Your task to perform on an android device: install app "Google Find My Device" Image 0: 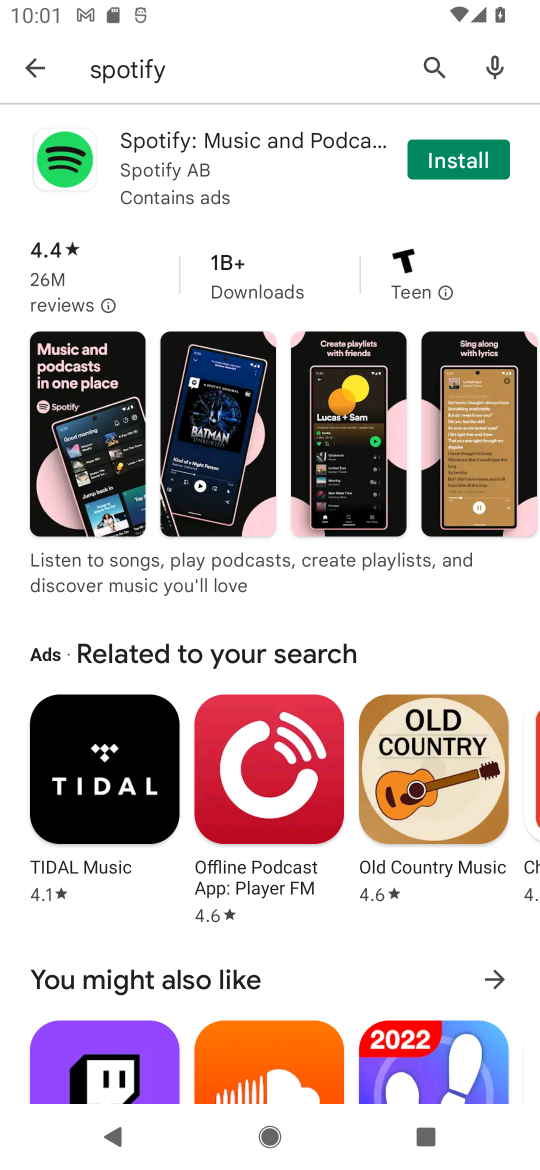
Step 0: press home button
Your task to perform on an android device: install app "Google Find My Device" Image 1: 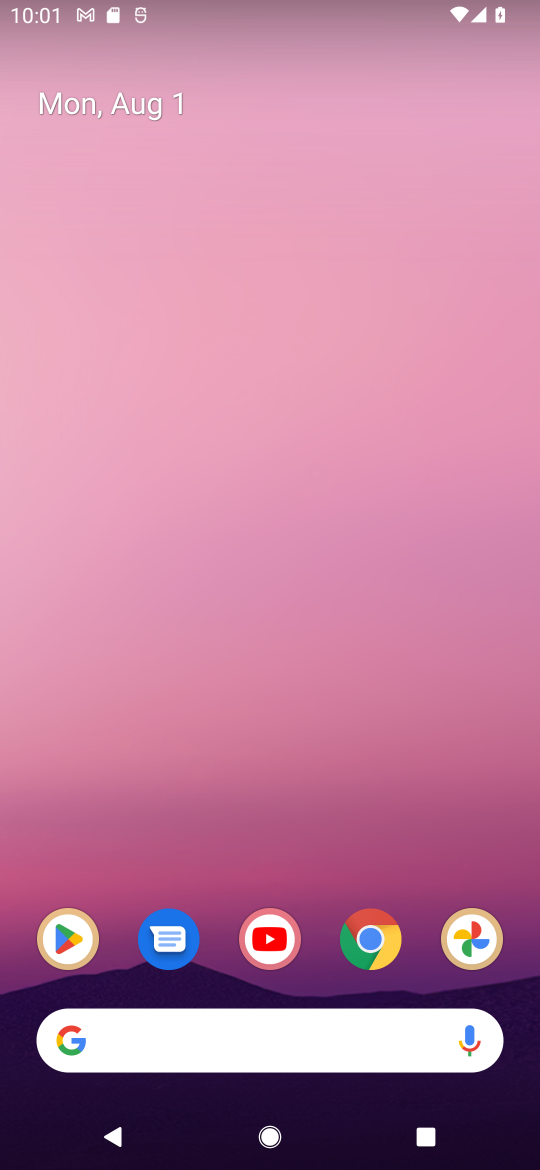
Step 1: drag from (382, 814) to (318, 714)
Your task to perform on an android device: install app "Google Find My Device" Image 2: 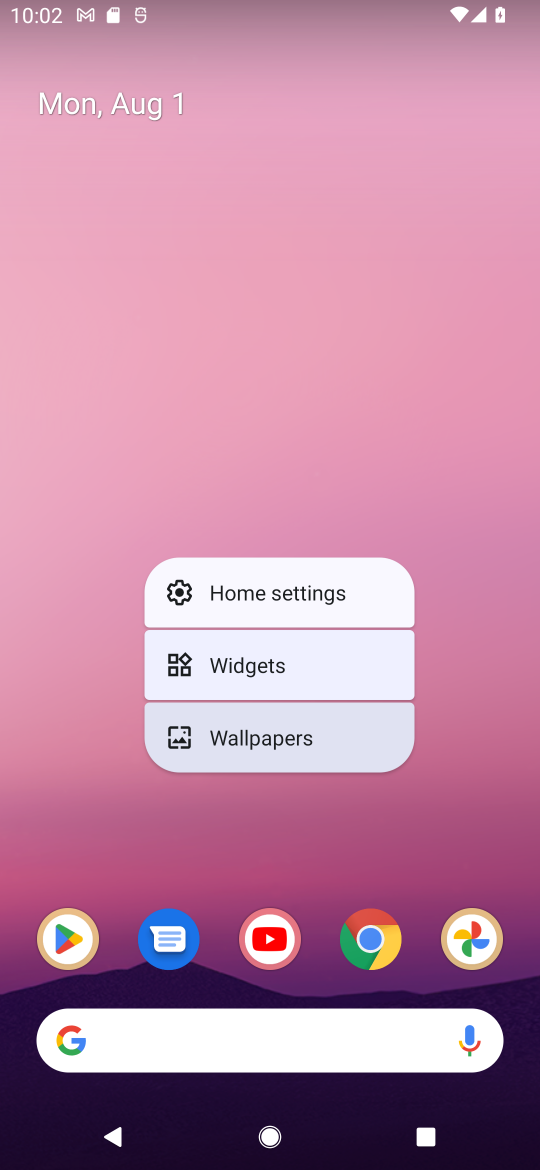
Step 2: click (431, 773)
Your task to perform on an android device: install app "Google Find My Device" Image 3: 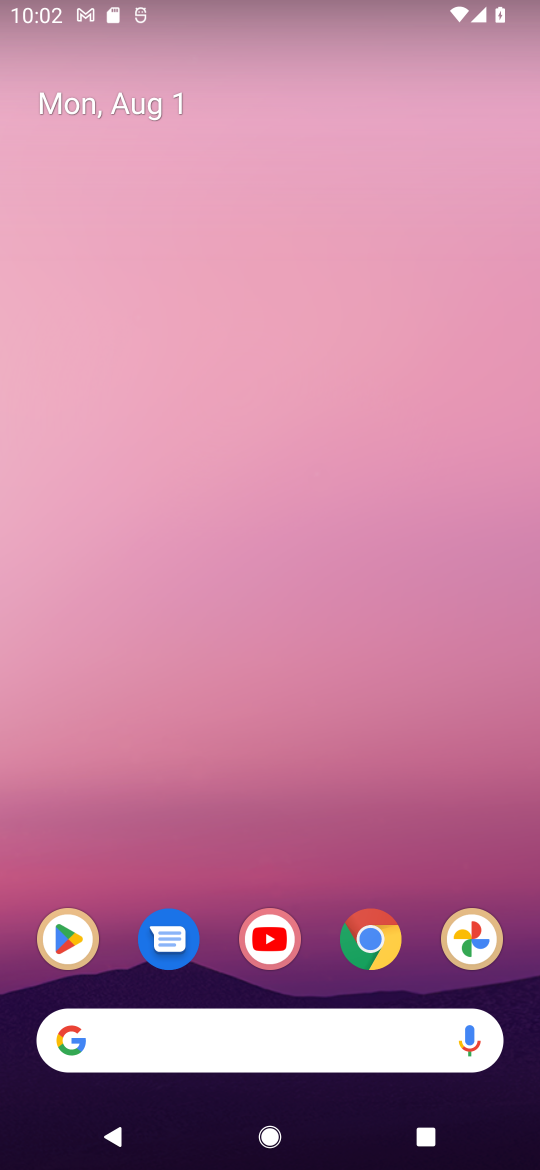
Step 3: drag from (337, 461) to (264, 222)
Your task to perform on an android device: install app "Google Find My Device" Image 4: 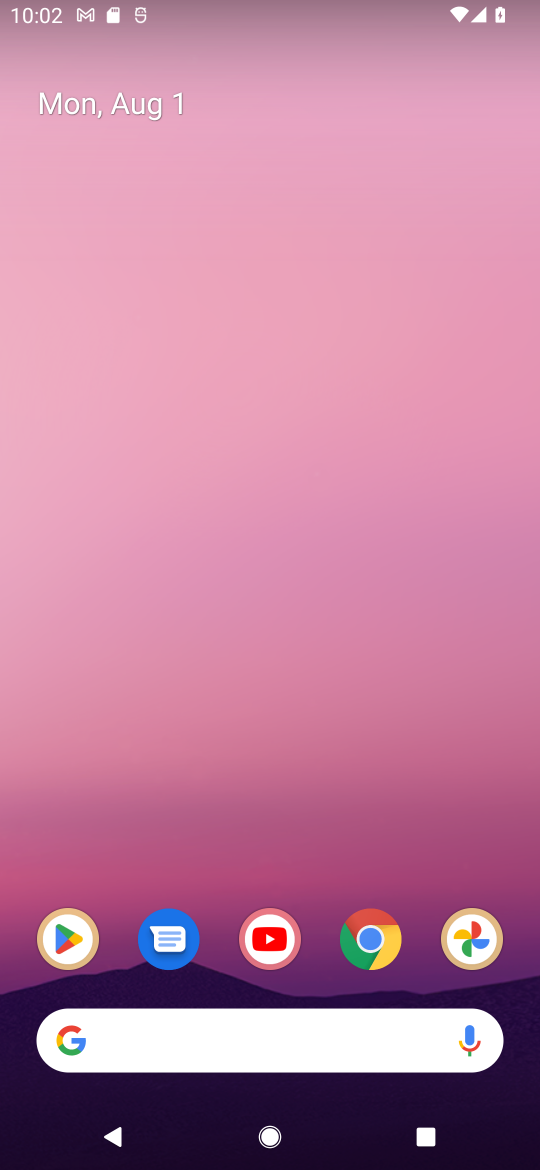
Step 4: click (88, 945)
Your task to perform on an android device: install app "Google Find My Device" Image 5: 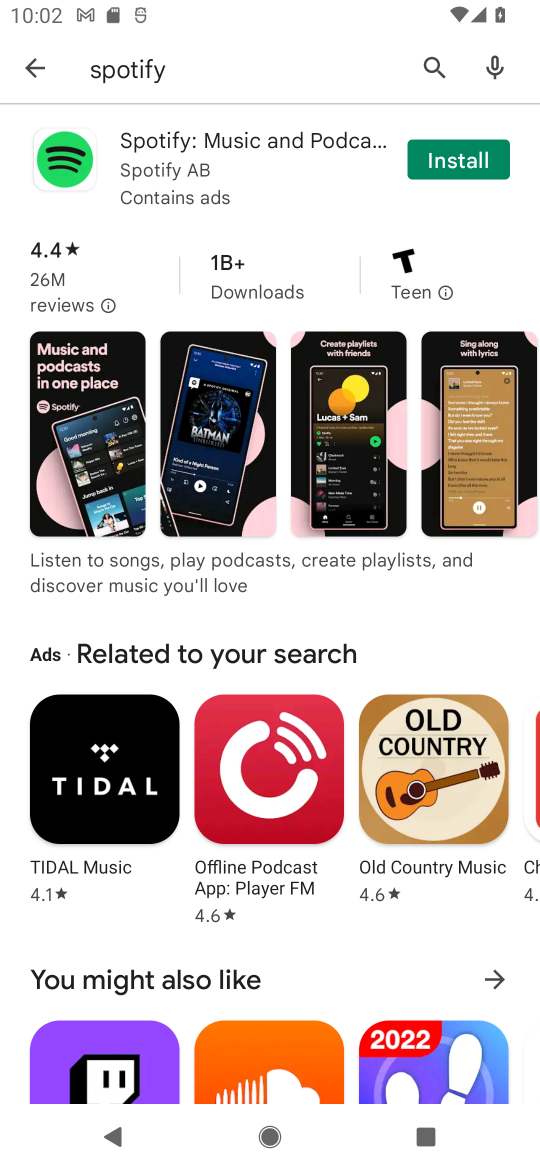
Step 5: click (429, 54)
Your task to perform on an android device: install app "Google Find My Device" Image 6: 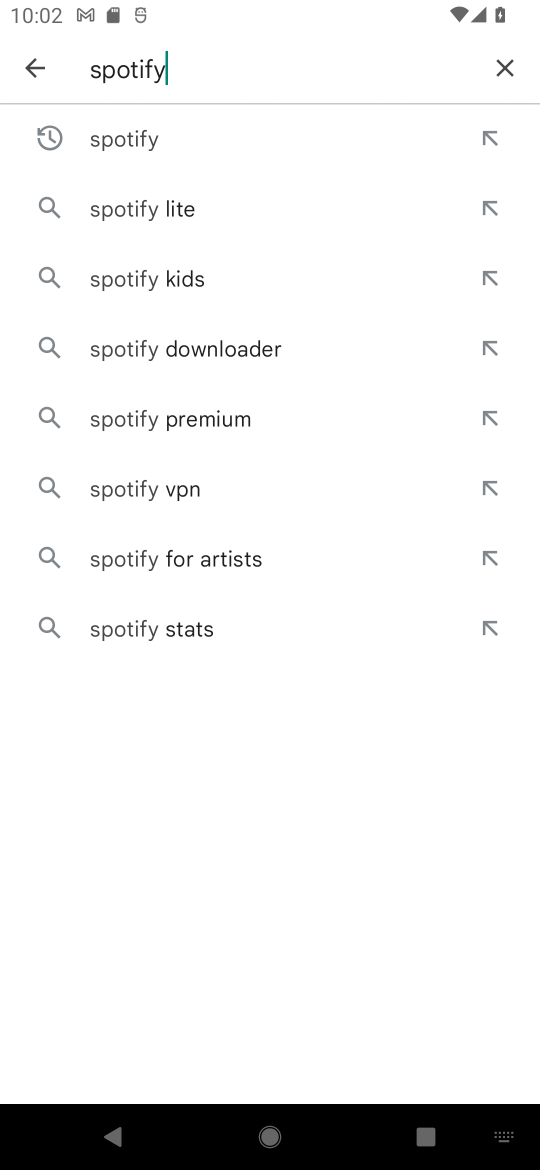
Step 6: click (506, 70)
Your task to perform on an android device: install app "Google Find My Device" Image 7: 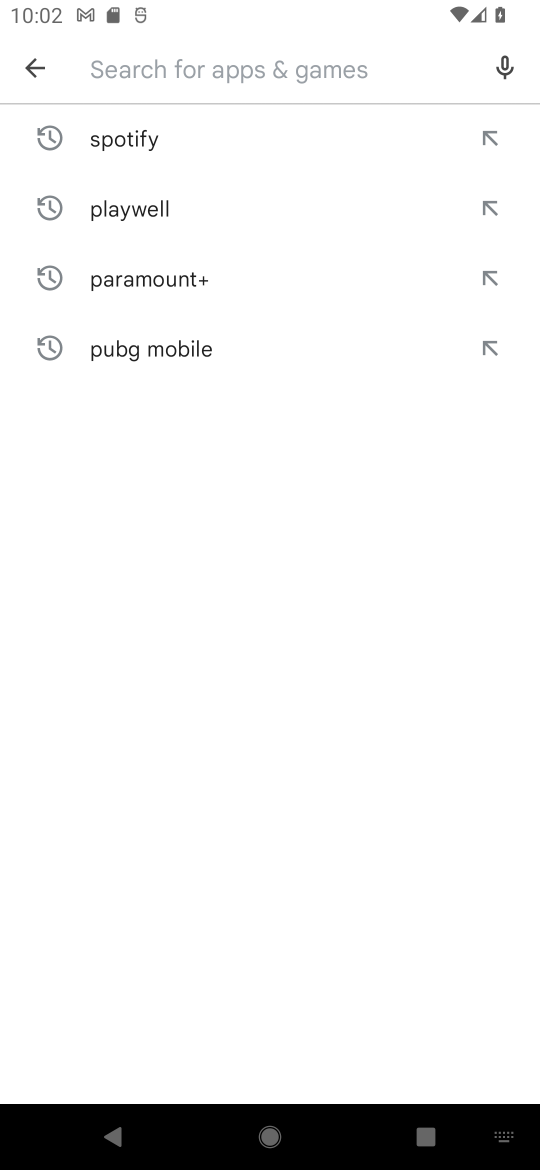
Step 7: type "google find my device"
Your task to perform on an android device: install app "Google Find My Device" Image 8: 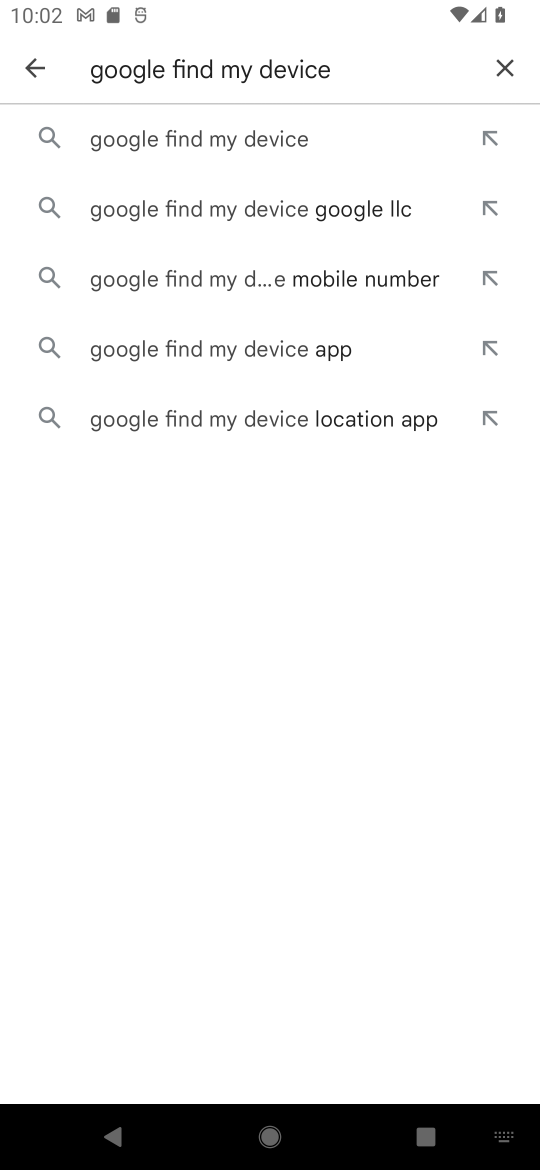
Step 8: click (280, 139)
Your task to perform on an android device: install app "Google Find My Device" Image 9: 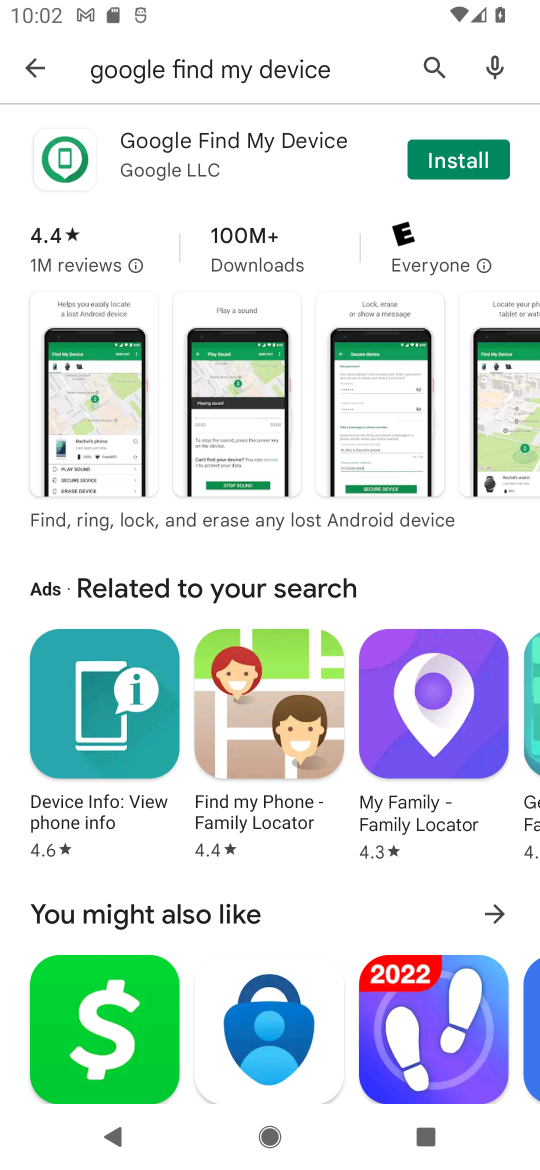
Step 9: click (462, 155)
Your task to perform on an android device: install app "Google Find My Device" Image 10: 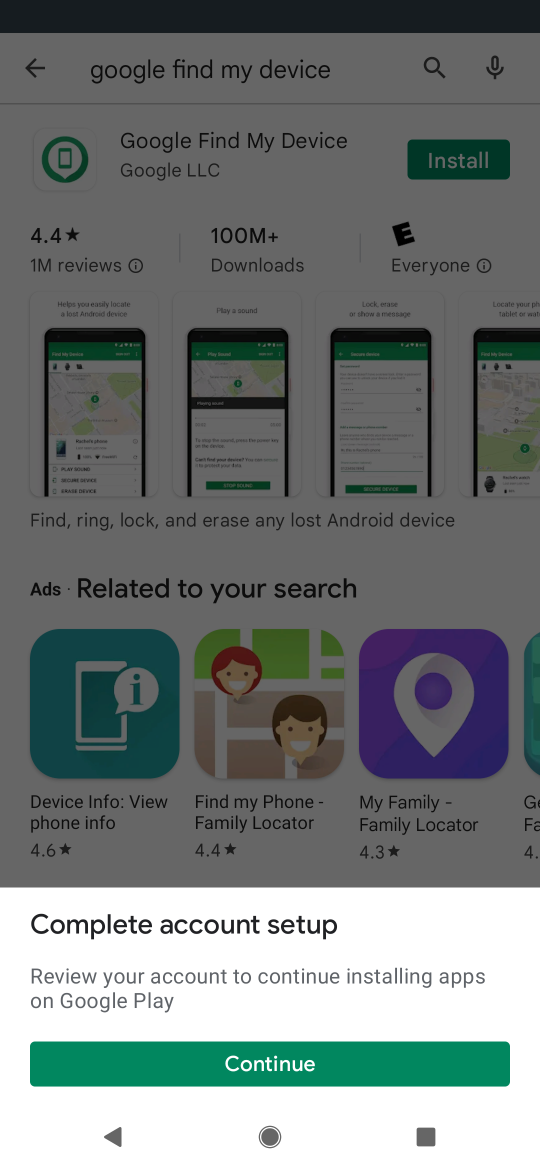
Step 10: click (159, 1056)
Your task to perform on an android device: install app "Google Find My Device" Image 11: 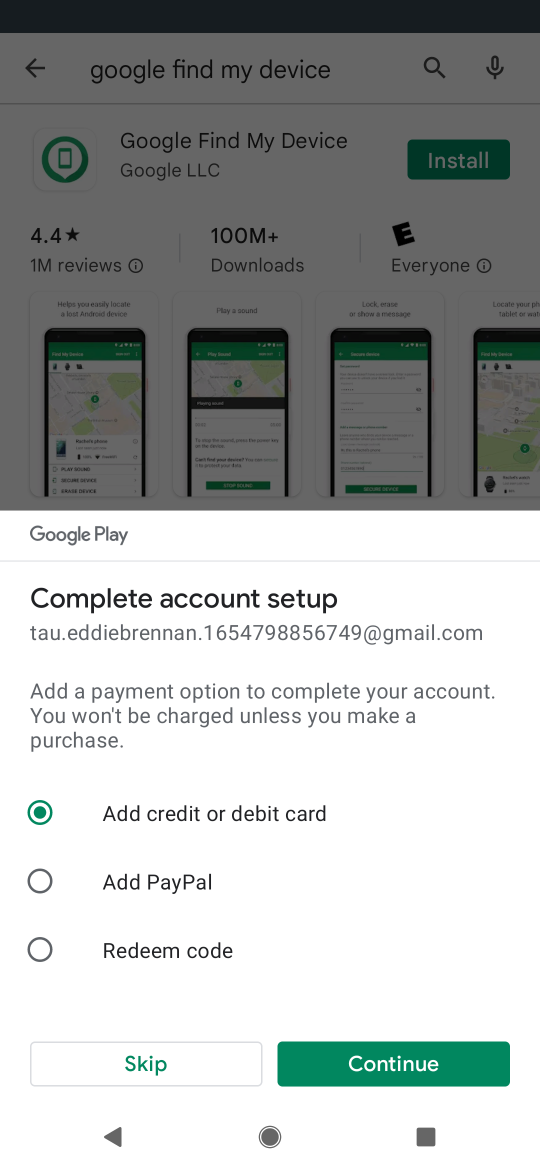
Step 11: click (142, 1057)
Your task to perform on an android device: install app "Google Find My Device" Image 12: 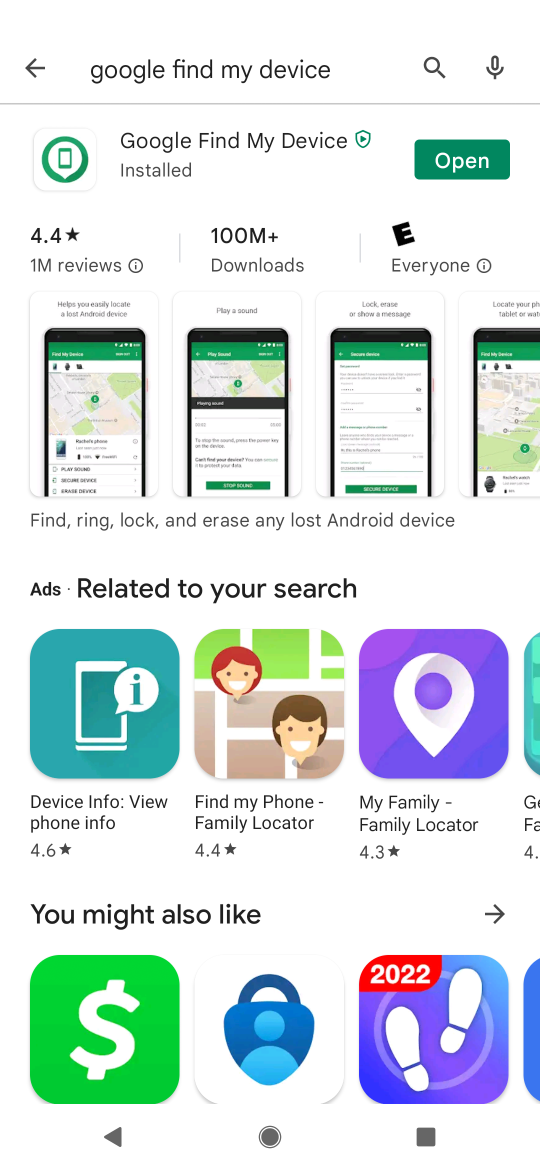
Step 12: task complete